Your task to perform on an android device: open app "Walmart Shopping & Grocery" (install if not already installed) Image 0: 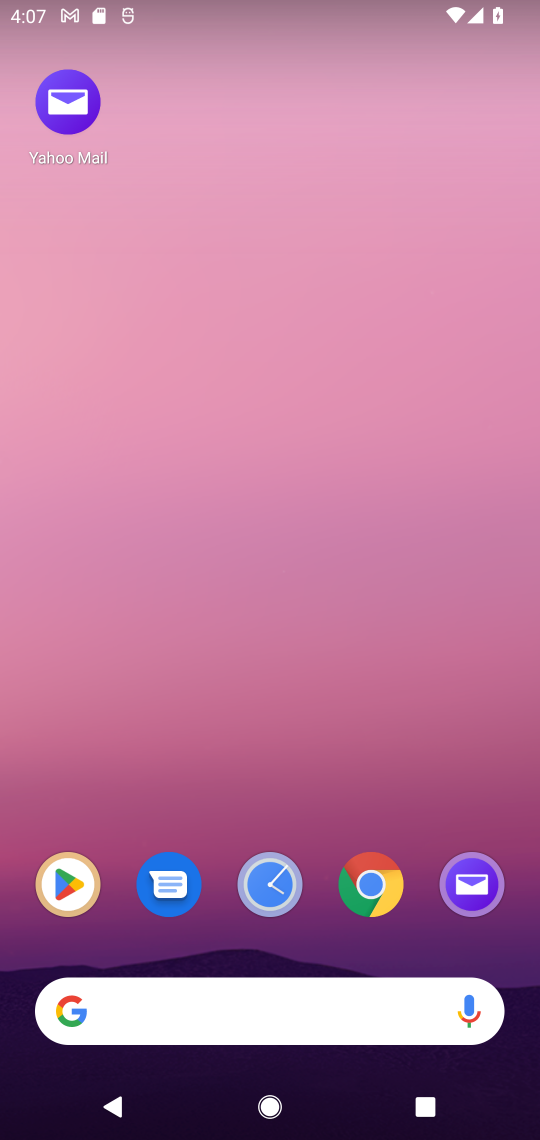
Step 0: drag from (219, 786) to (156, 54)
Your task to perform on an android device: open app "Walmart Shopping & Grocery" (install if not already installed) Image 1: 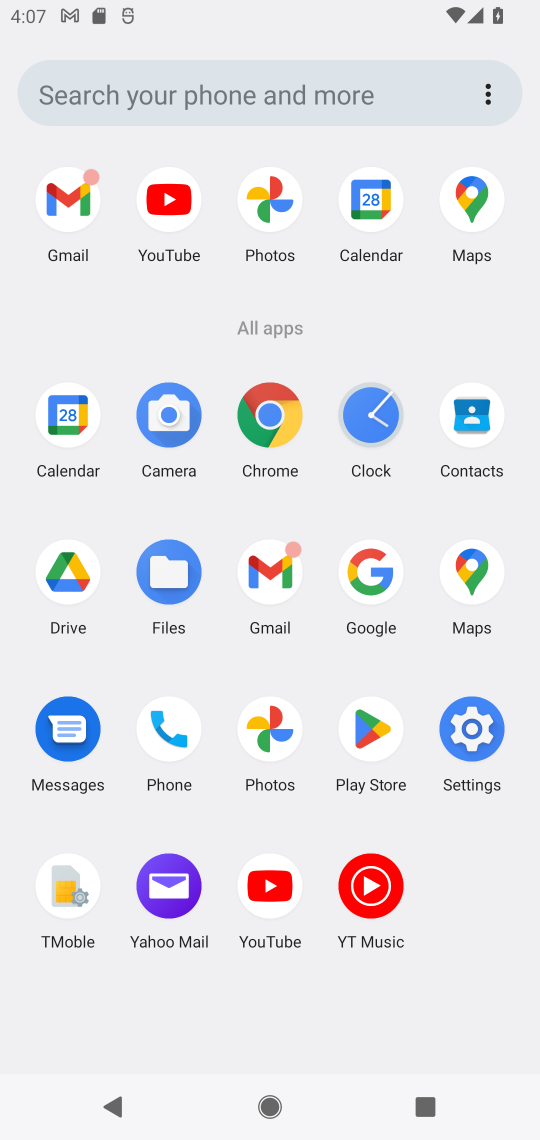
Step 1: click (255, 204)
Your task to perform on an android device: open app "Walmart Shopping & Grocery" (install if not already installed) Image 2: 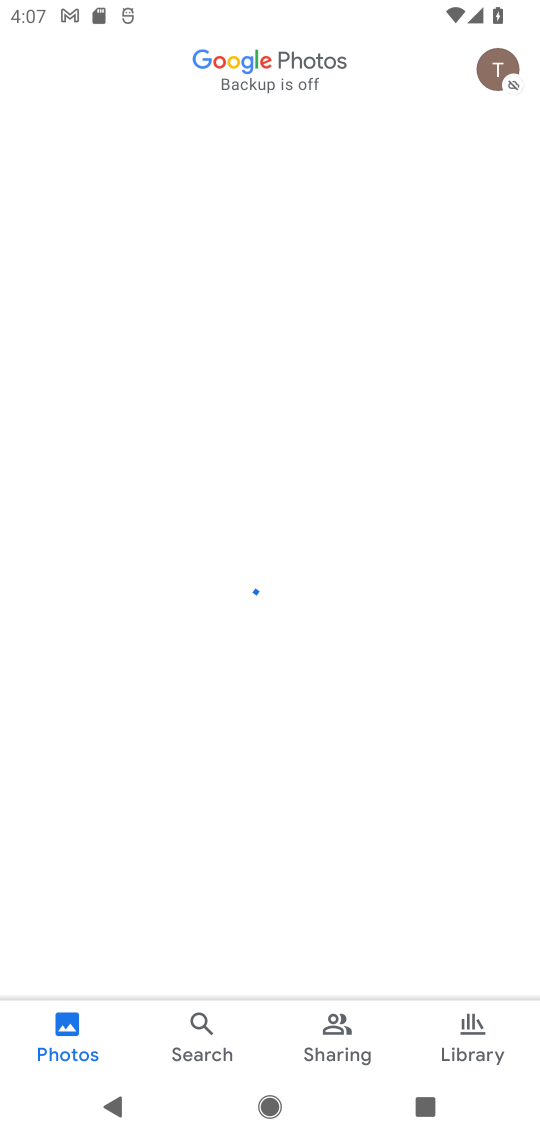
Step 2: press home button
Your task to perform on an android device: open app "Walmart Shopping & Grocery" (install if not already installed) Image 3: 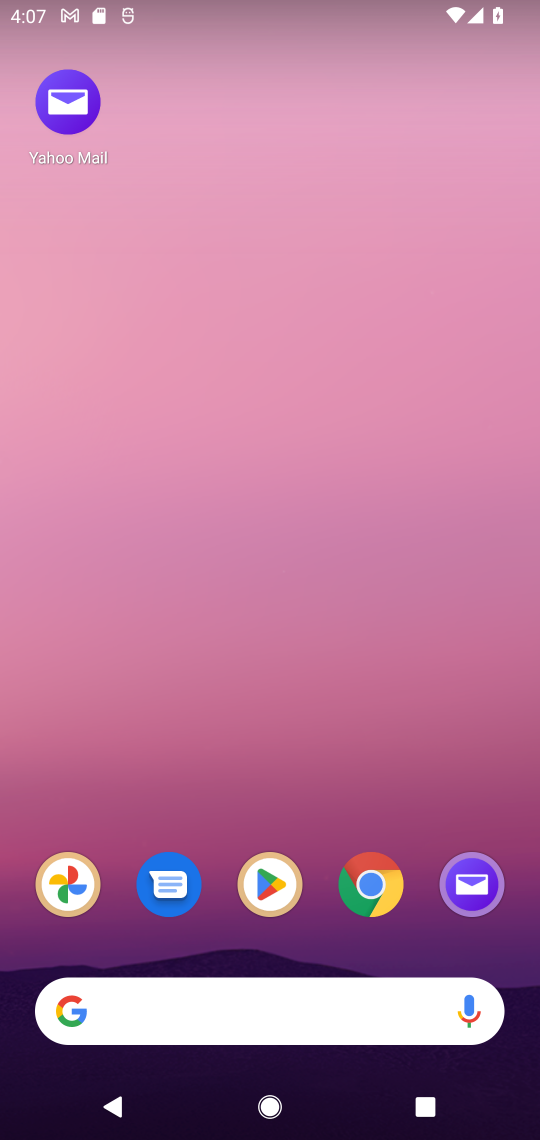
Step 3: click (266, 882)
Your task to perform on an android device: open app "Walmart Shopping & Grocery" (install if not already installed) Image 4: 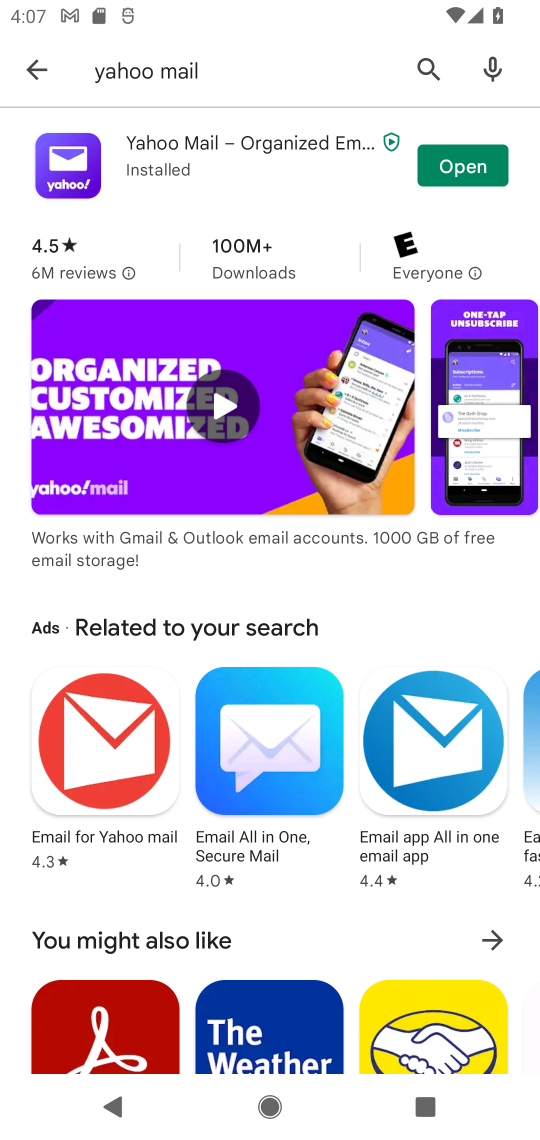
Step 4: click (437, 65)
Your task to perform on an android device: open app "Walmart Shopping & Grocery" (install if not already installed) Image 5: 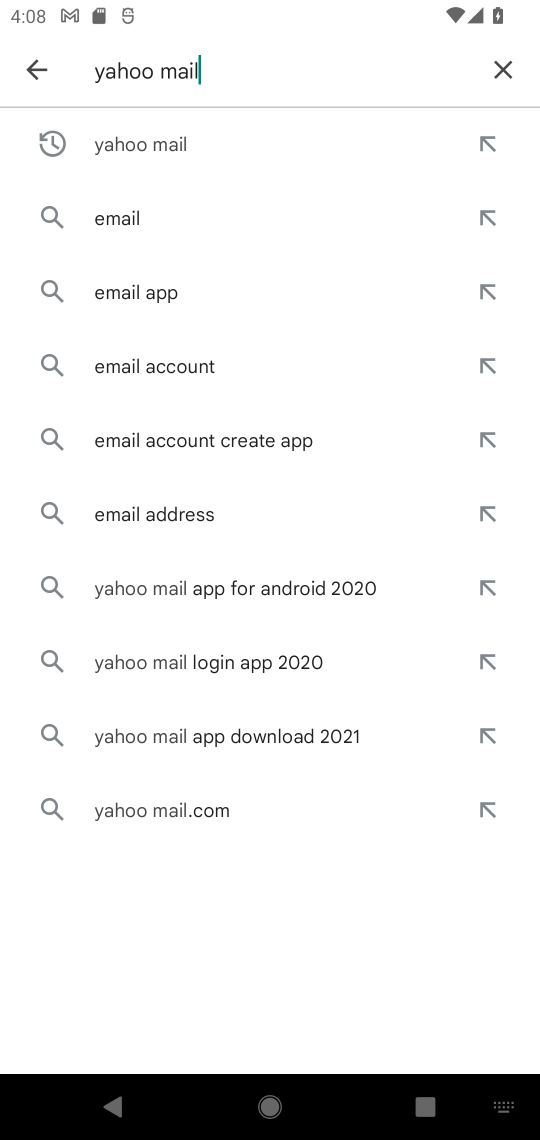
Step 5: type "walmart shopping and grocery"
Your task to perform on an android device: open app "Walmart Shopping & Grocery" (install if not already installed) Image 6: 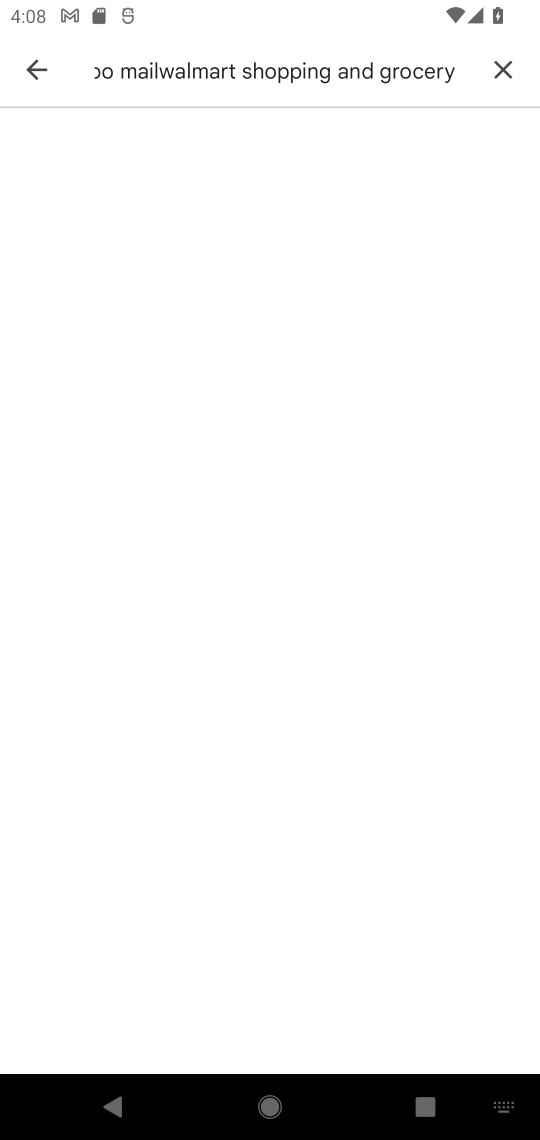
Step 6: click (506, 73)
Your task to perform on an android device: open app "Walmart Shopping & Grocery" (install if not already installed) Image 7: 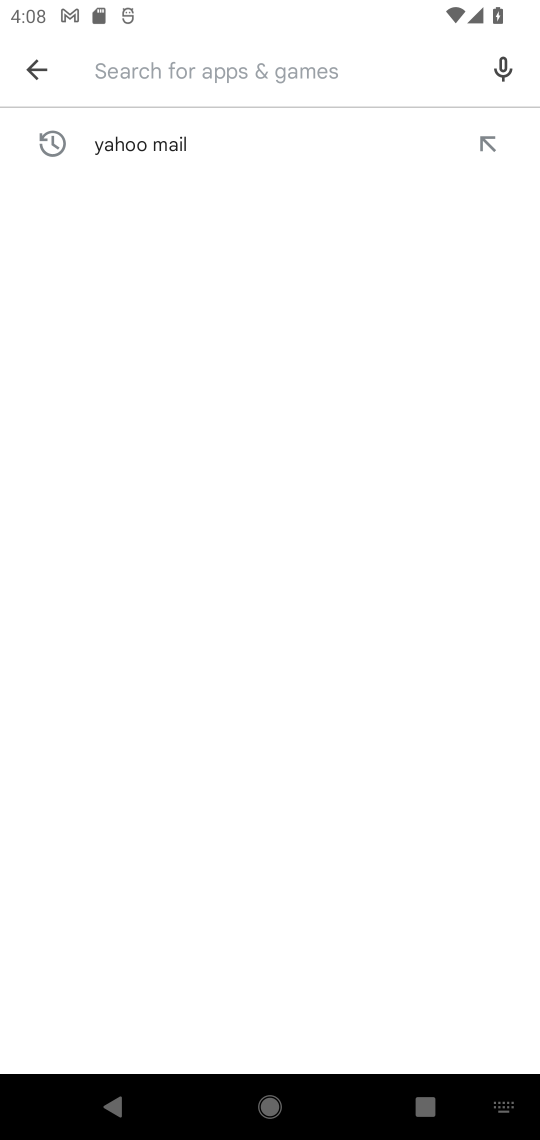
Step 7: type "Walmart Shopping & Grocery"
Your task to perform on an android device: open app "Walmart Shopping & Grocery" (install if not already installed) Image 8: 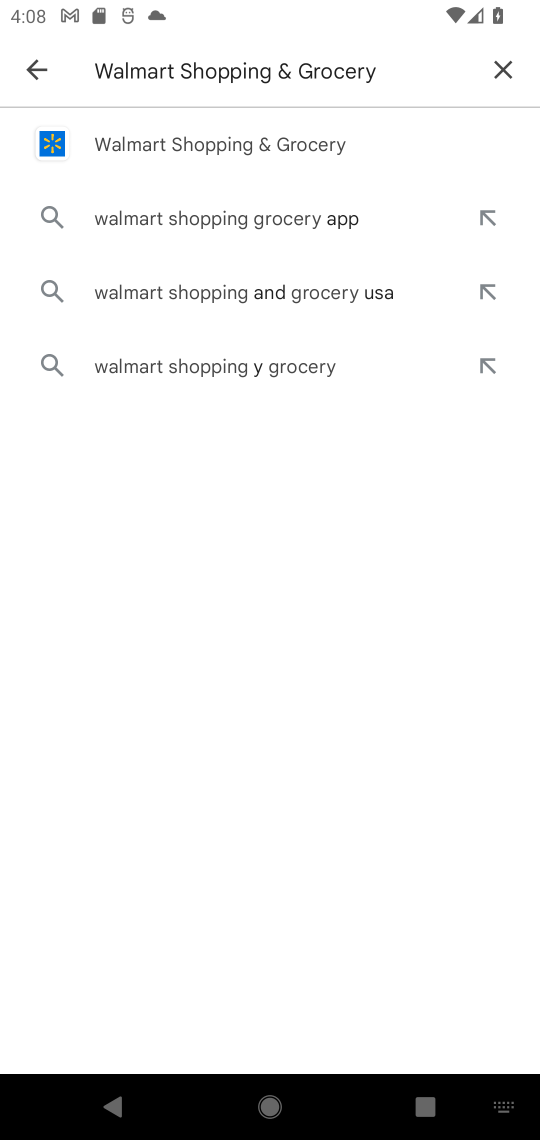
Step 8: click (291, 142)
Your task to perform on an android device: open app "Walmart Shopping & Grocery" (install if not already installed) Image 9: 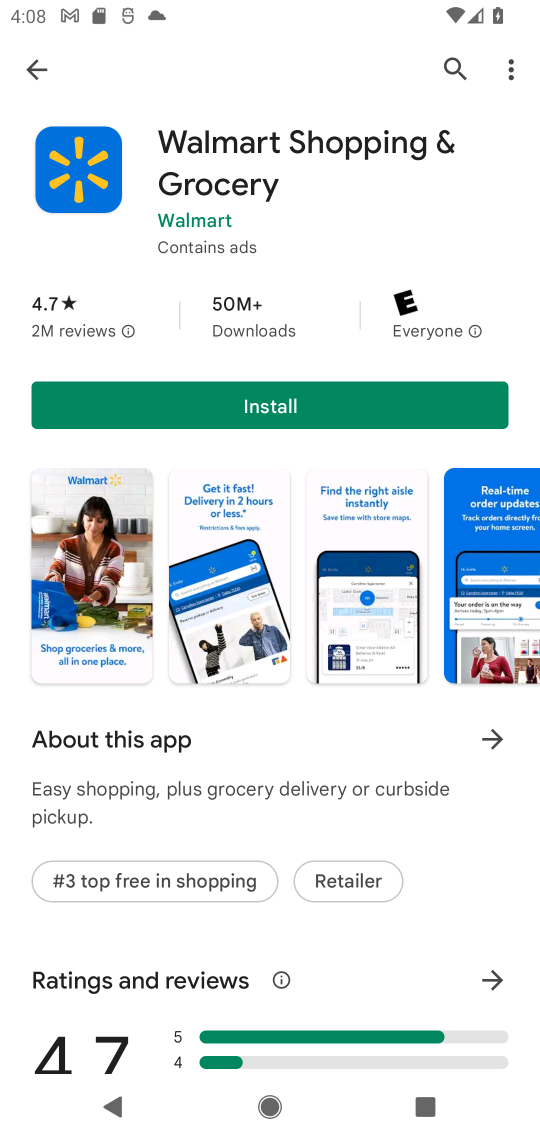
Step 9: click (322, 391)
Your task to perform on an android device: open app "Walmart Shopping & Grocery" (install if not already installed) Image 10: 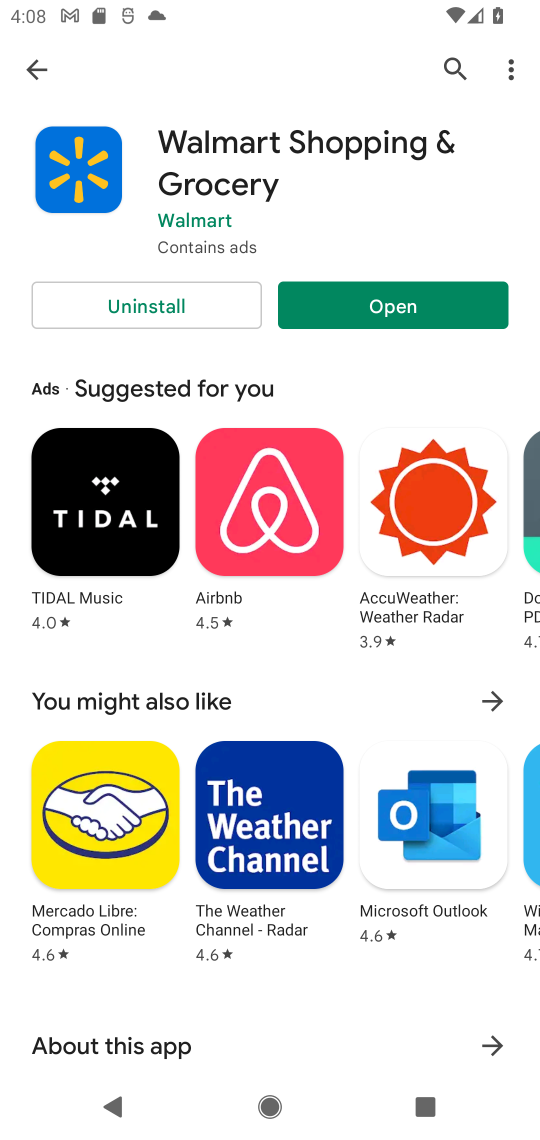
Step 10: click (462, 283)
Your task to perform on an android device: open app "Walmart Shopping & Grocery" (install if not already installed) Image 11: 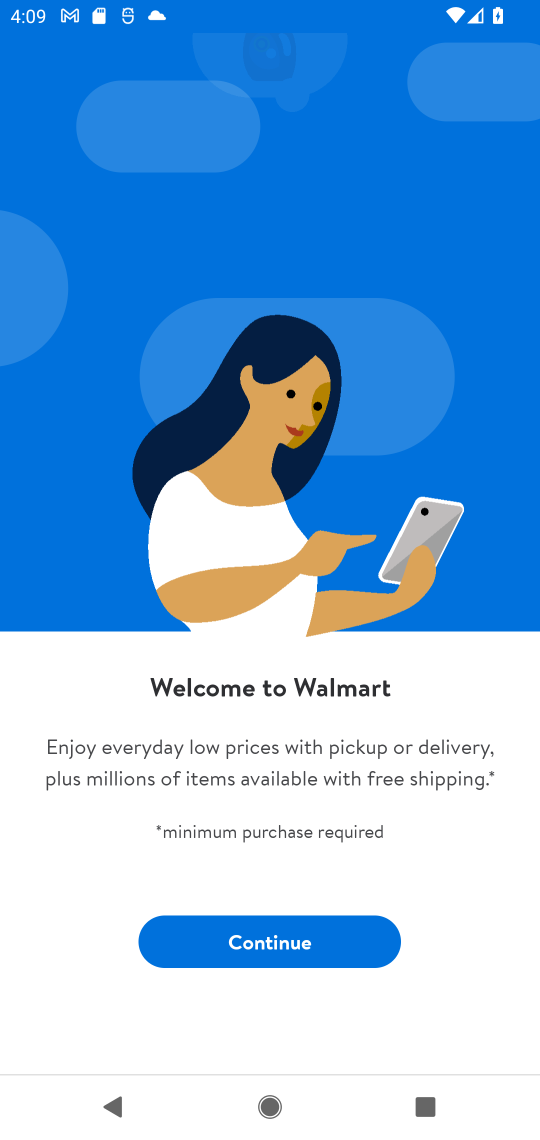
Step 11: task complete